Your task to perform on an android device: Go to ESPN.com Image 0: 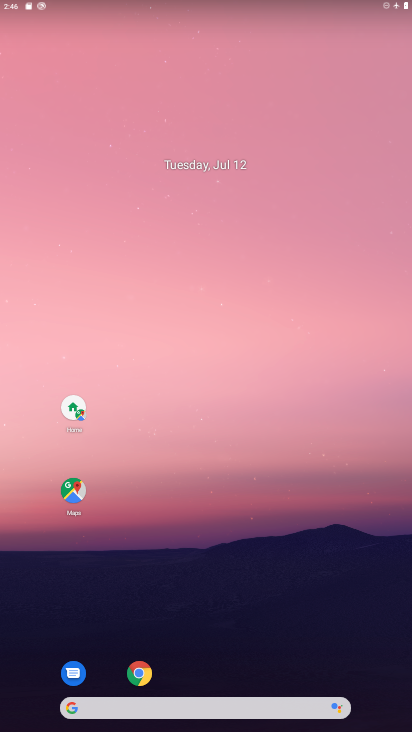
Step 0: drag from (204, 662) to (242, 306)
Your task to perform on an android device: Go to ESPN.com Image 1: 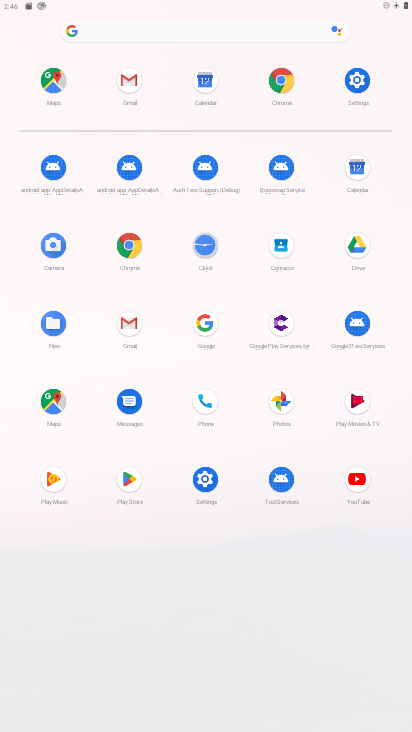
Step 1: click (128, 243)
Your task to perform on an android device: Go to ESPN.com Image 2: 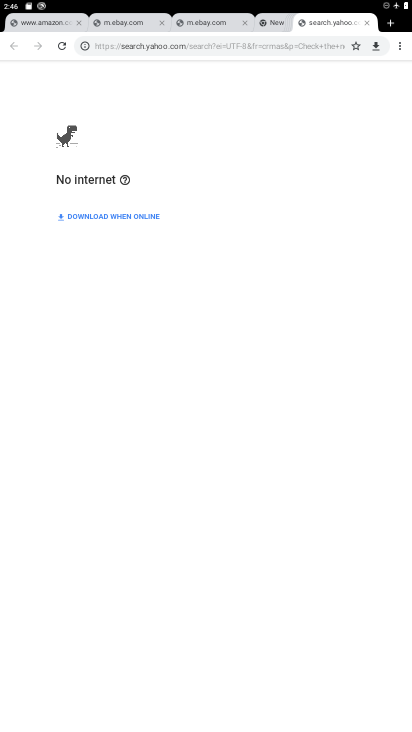
Step 2: click (405, 53)
Your task to perform on an android device: Go to ESPN.com Image 3: 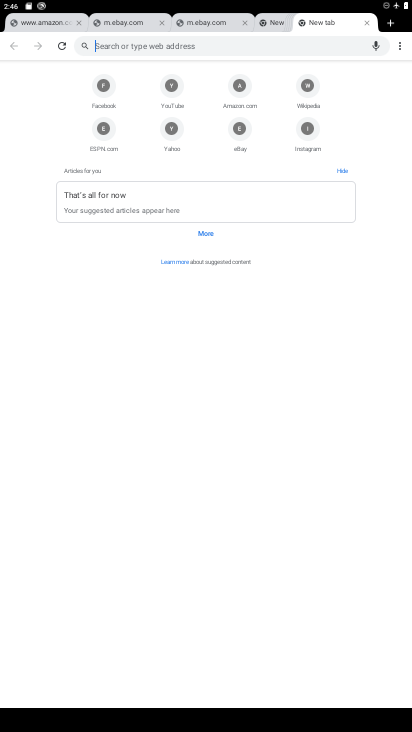
Step 3: click (109, 132)
Your task to perform on an android device: Go to ESPN.com Image 4: 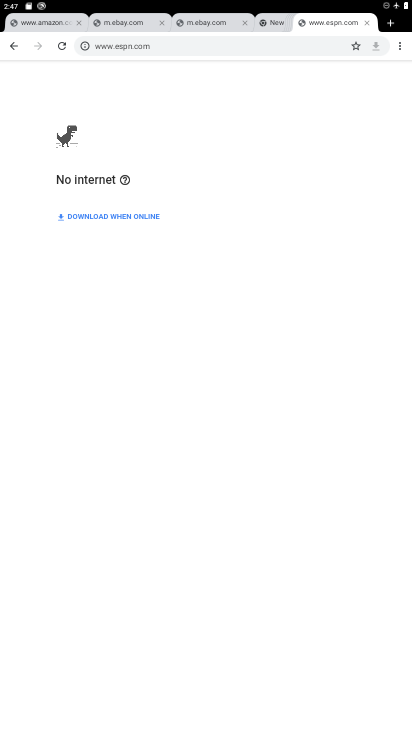
Step 4: task complete